Your task to perform on an android device: Open Google Image 0: 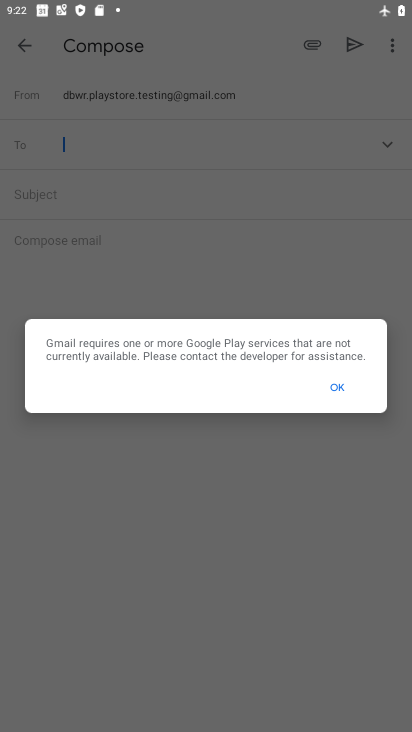
Step 0: press home button
Your task to perform on an android device: Open Google Image 1: 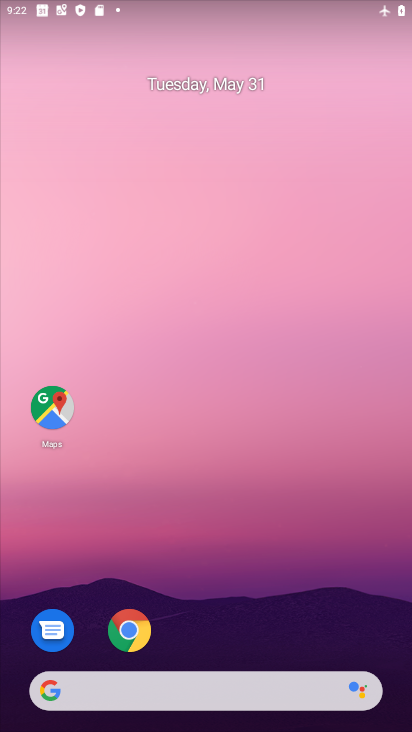
Step 1: drag from (196, 537) to (205, 221)
Your task to perform on an android device: Open Google Image 2: 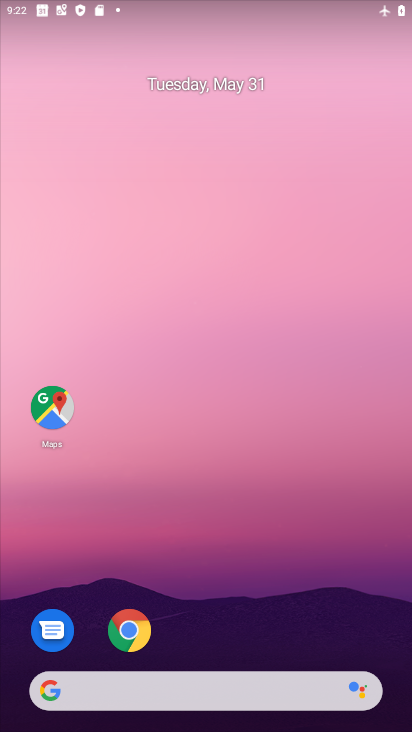
Step 2: drag from (241, 619) to (216, 156)
Your task to perform on an android device: Open Google Image 3: 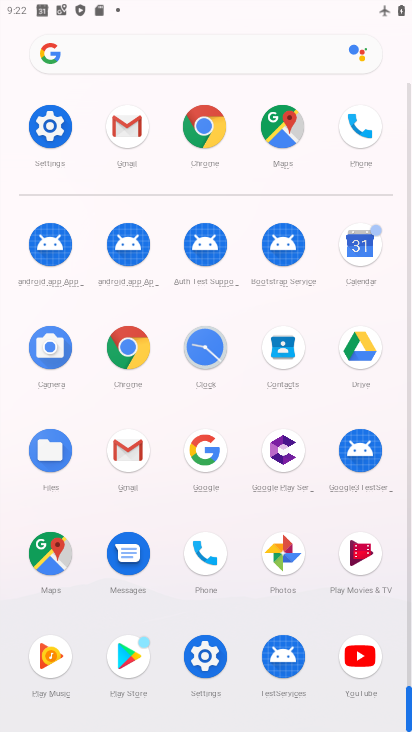
Step 3: click (207, 448)
Your task to perform on an android device: Open Google Image 4: 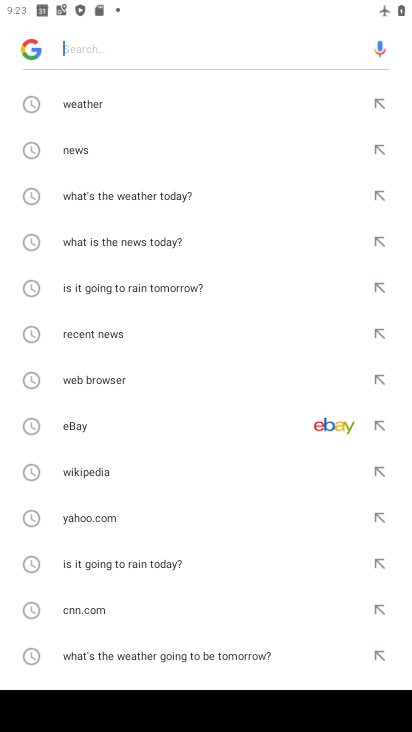
Step 4: task complete